Your task to perform on an android device: change timer sound Image 0: 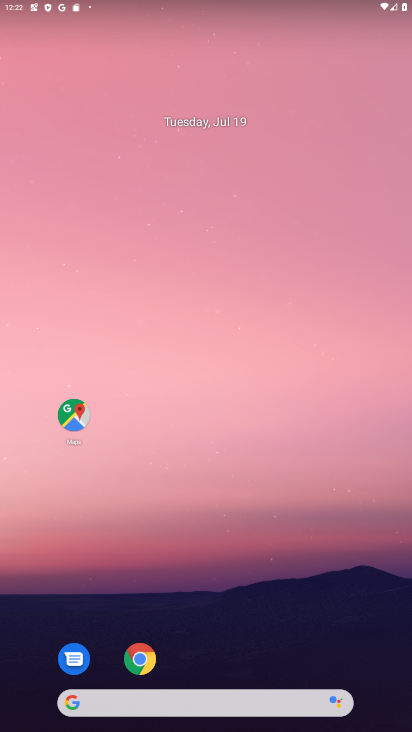
Step 0: drag from (167, 706) to (254, 122)
Your task to perform on an android device: change timer sound Image 1: 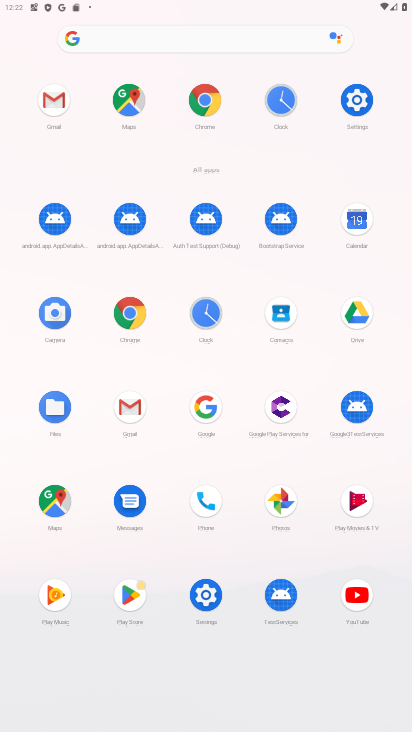
Step 1: click (283, 101)
Your task to perform on an android device: change timer sound Image 2: 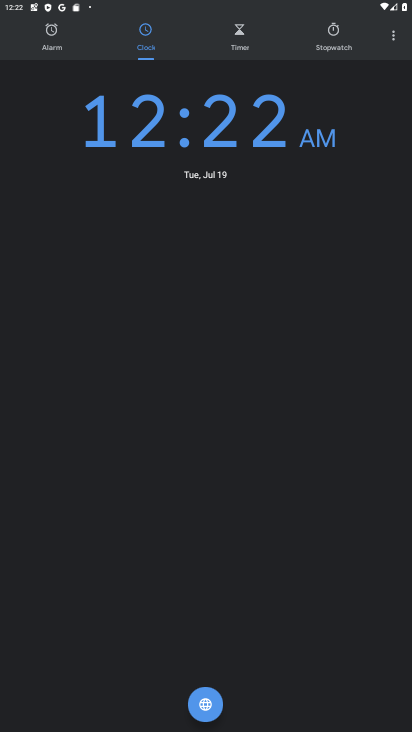
Step 2: click (392, 37)
Your task to perform on an android device: change timer sound Image 3: 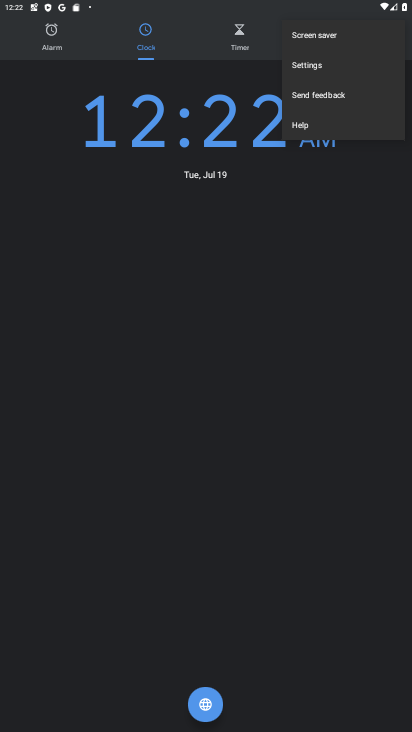
Step 3: click (309, 66)
Your task to perform on an android device: change timer sound Image 4: 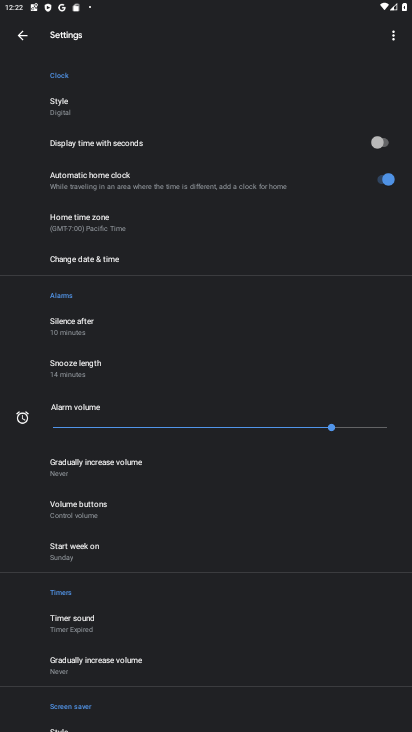
Step 4: click (76, 627)
Your task to perform on an android device: change timer sound Image 5: 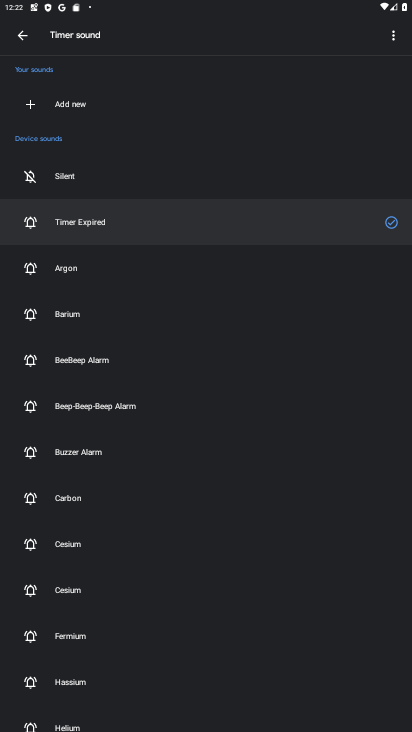
Step 5: drag from (123, 655) to (174, 391)
Your task to perform on an android device: change timer sound Image 6: 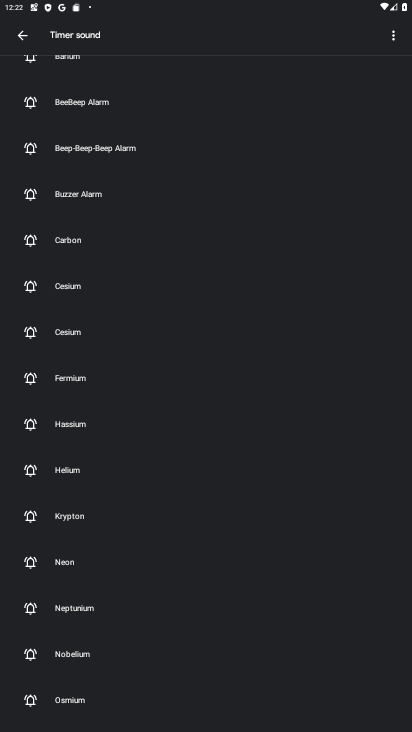
Step 6: click (65, 331)
Your task to perform on an android device: change timer sound Image 7: 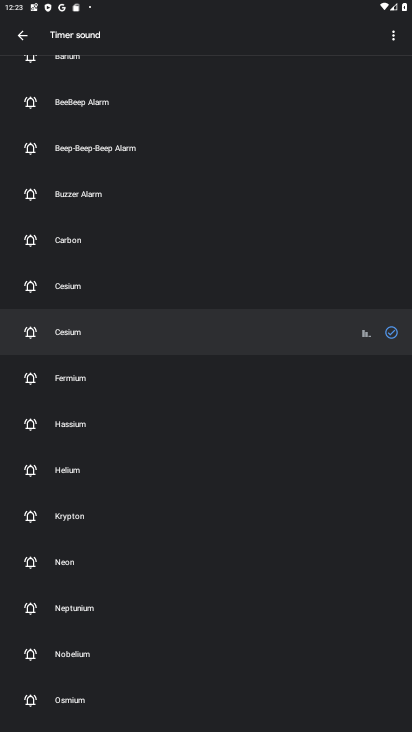
Step 7: task complete